Your task to perform on an android device: Open the contacts Image 0: 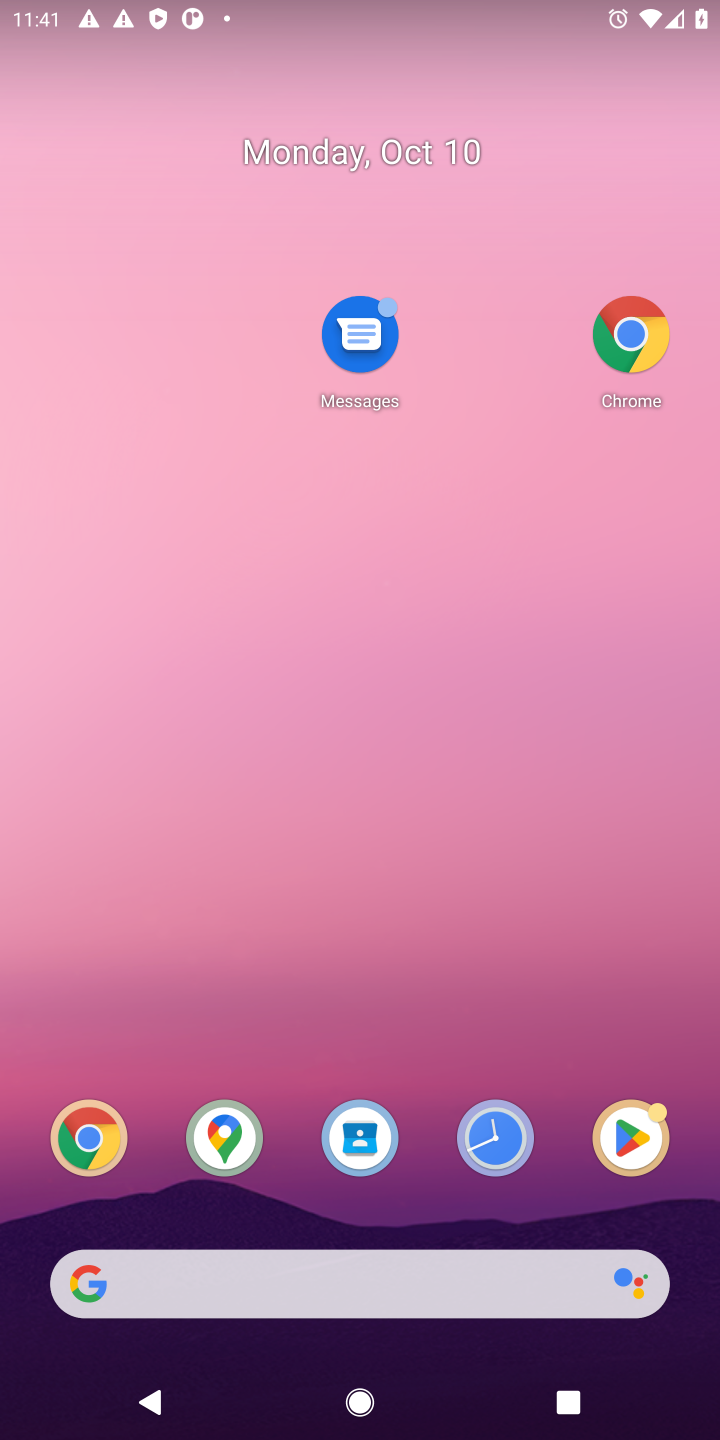
Step 0: click (366, 1138)
Your task to perform on an android device: Open the contacts Image 1: 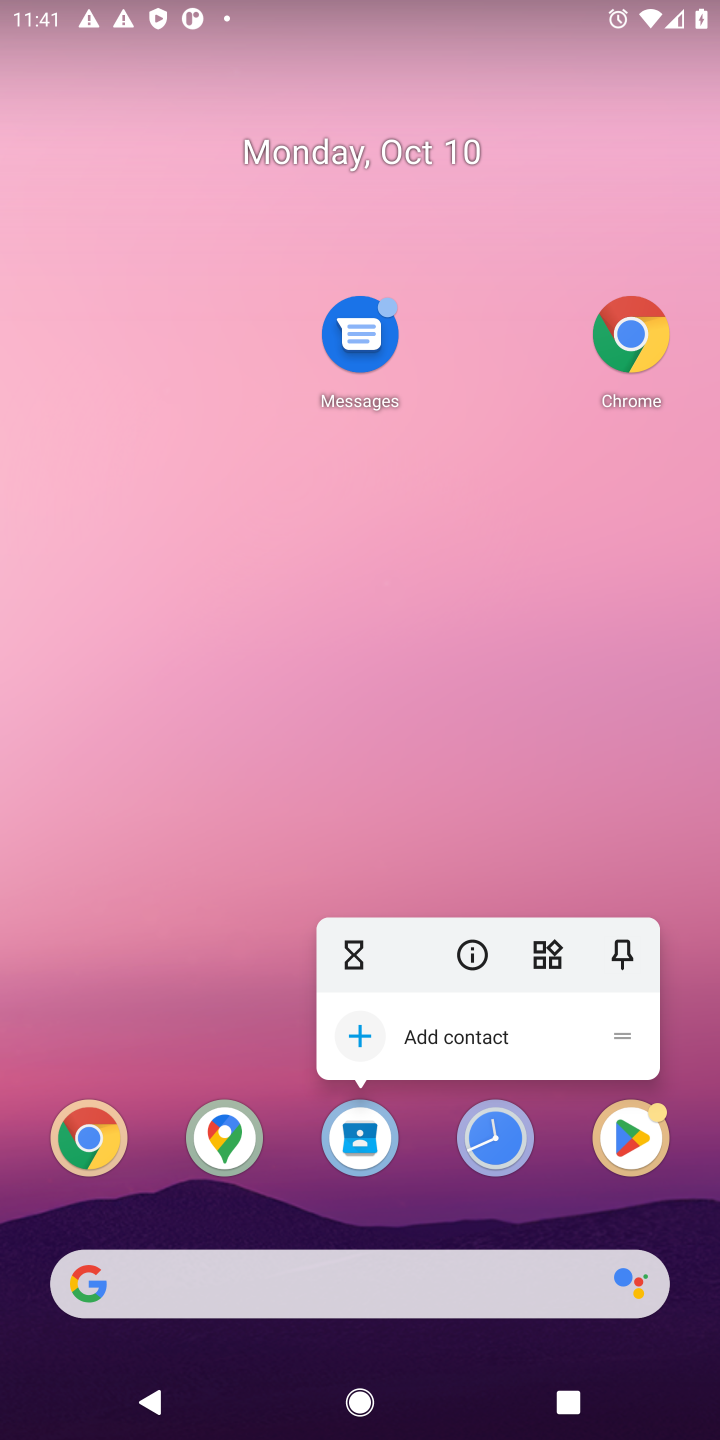
Step 1: click (376, 1155)
Your task to perform on an android device: Open the contacts Image 2: 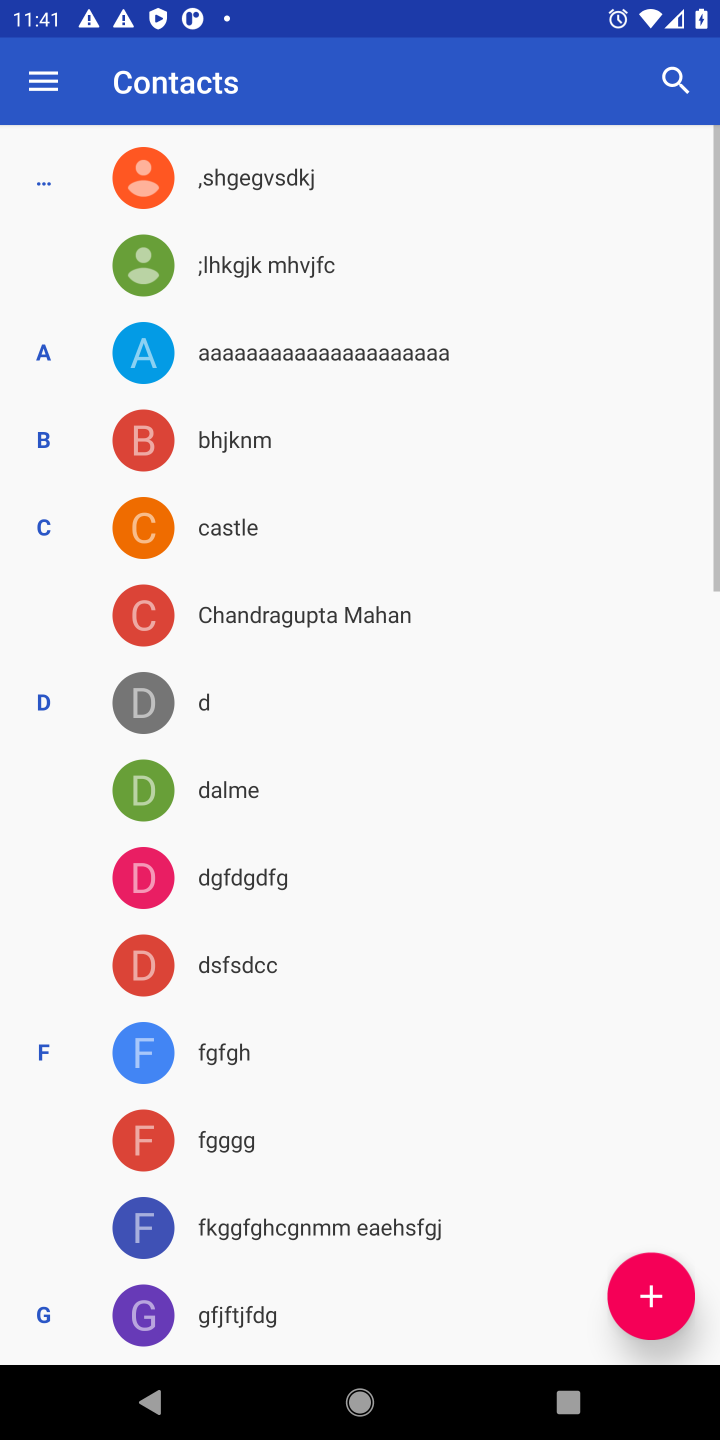
Step 2: task complete